Your task to perform on an android device: Show the shopping cart on bestbuy. Search for usb-c to usb-b on bestbuy, select the first entry, add it to the cart, then select checkout. Image 0: 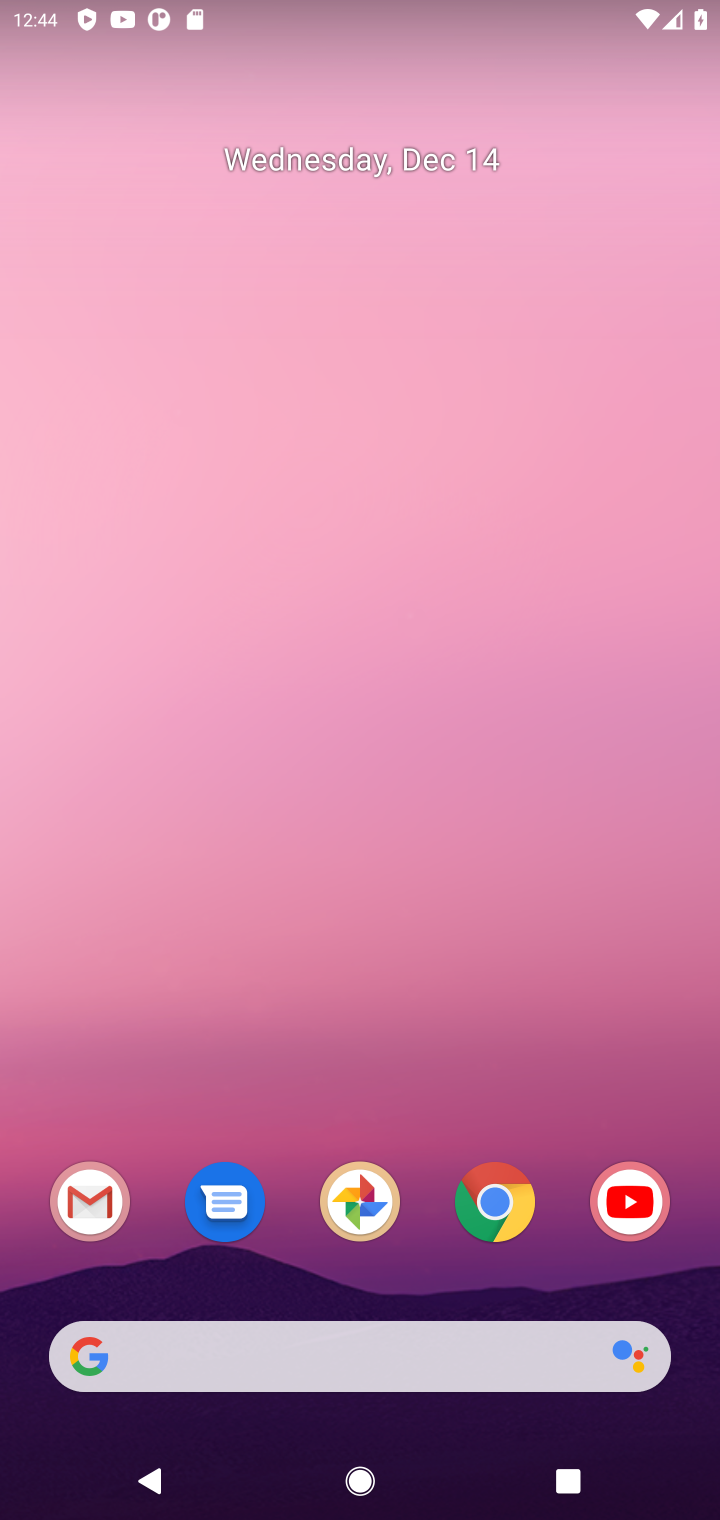
Step 0: task complete